Your task to perform on an android device: read, delete, or share a saved page in the chrome app Image 0: 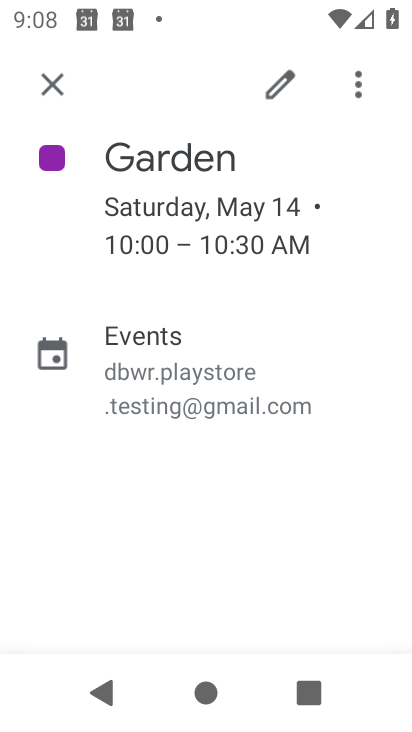
Step 0: press home button
Your task to perform on an android device: read, delete, or share a saved page in the chrome app Image 1: 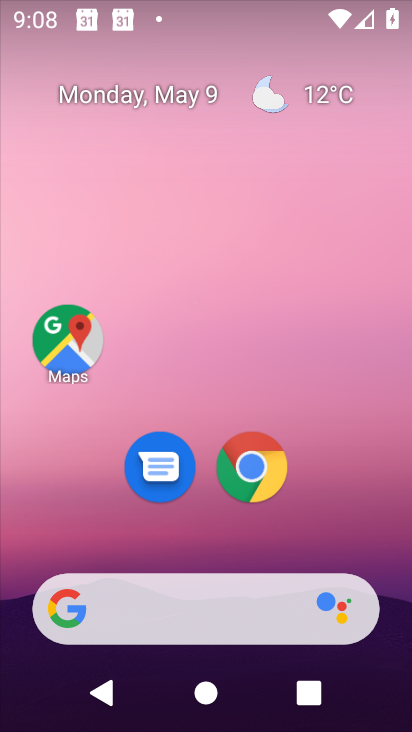
Step 1: click (220, 475)
Your task to perform on an android device: read, delete, or share a saved page in the chrome app Image 2: 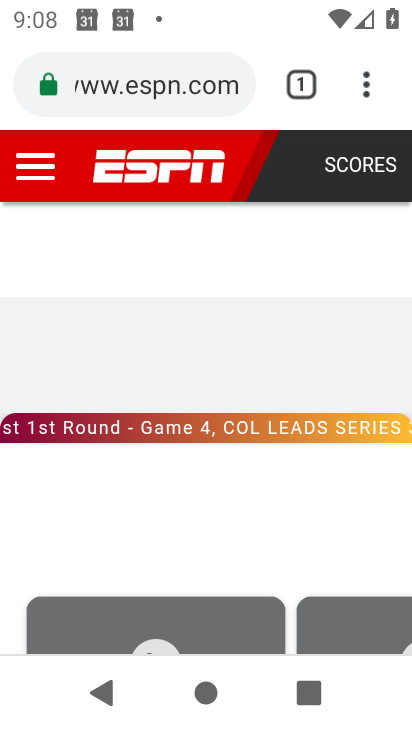
Step 2: click (368, 80)
Your task to perform on an android device: read, delete, or share a saved page in the chrome app Image 3: 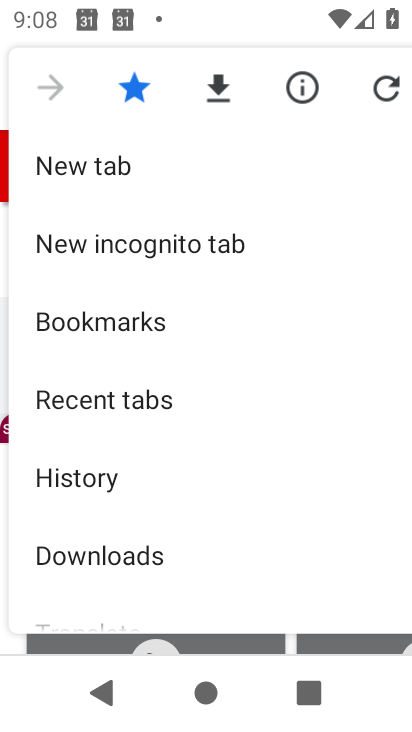
Step 3: click (70, 549)
Your task to perform on an android device: read, delete, or share a saved page in the chrome app Image 4: 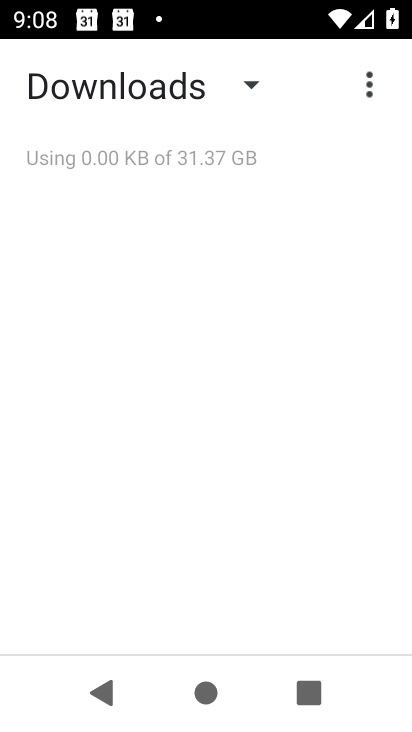
Step 4: click (264, 96)
Your task to perform on an android device: read, delete, or share a saved page in the chrome app Image 5: 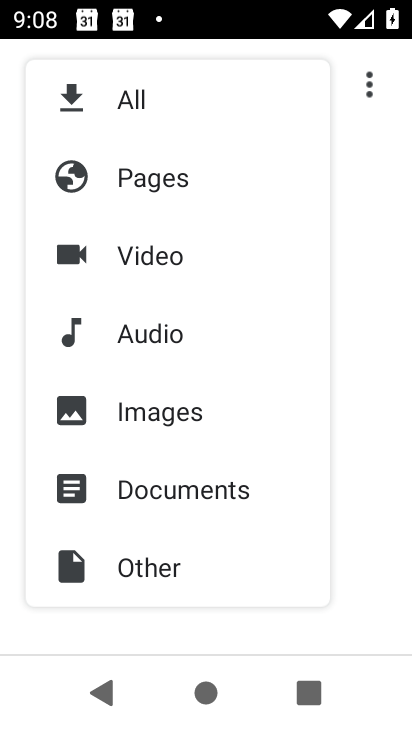
Step 5: click (143, 185)
Your task to perform on an android device: read, delete, or share a saved page in the chrome app Image 6: 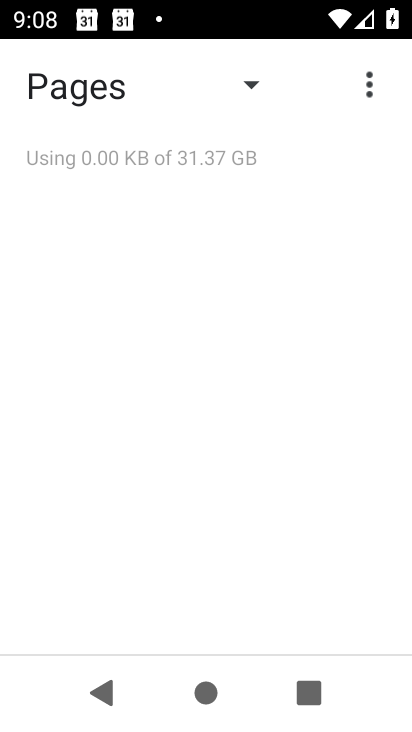
Step 6: task complete